Your task to perform on an android device: check android version Image 0: 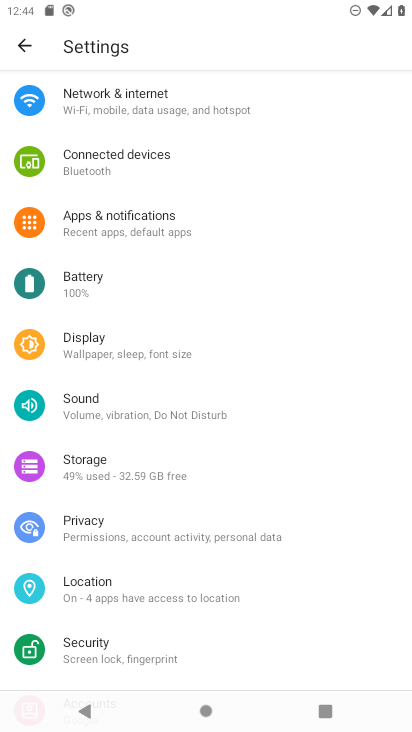
Step 0: drag from (348, 618) to (404, 198)
Your task to perform on an android device: check android version Image 1: 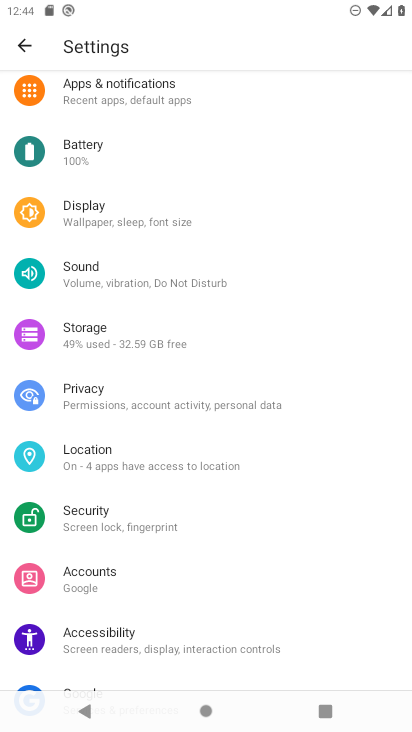
Step 1: drag from (280, 505) to (312, 36)
Your task to perform on an android device: check android version Image 2: 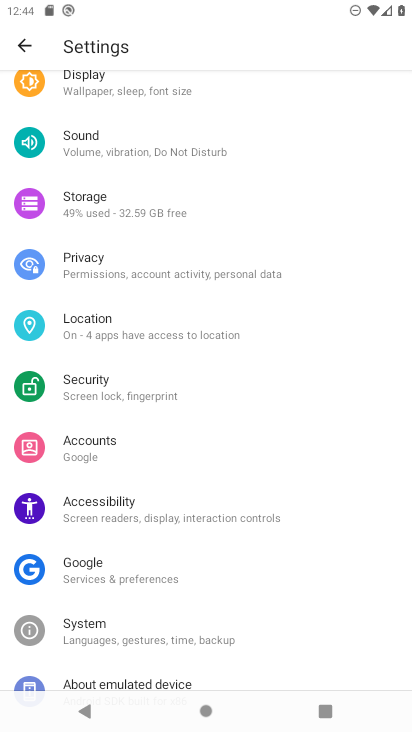
Step 2: drag from (262, 603) to (278, 197)
Your task to perform on an android device: check android version Image 3: 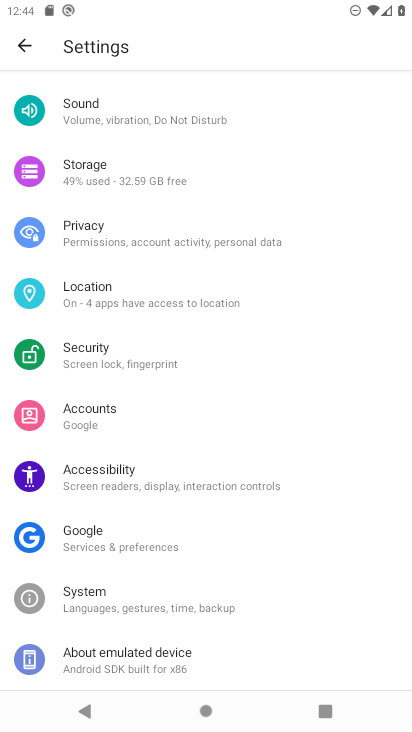
Step 3: click (98, 669)
Your task to perform on an android device: check android version Image 4: 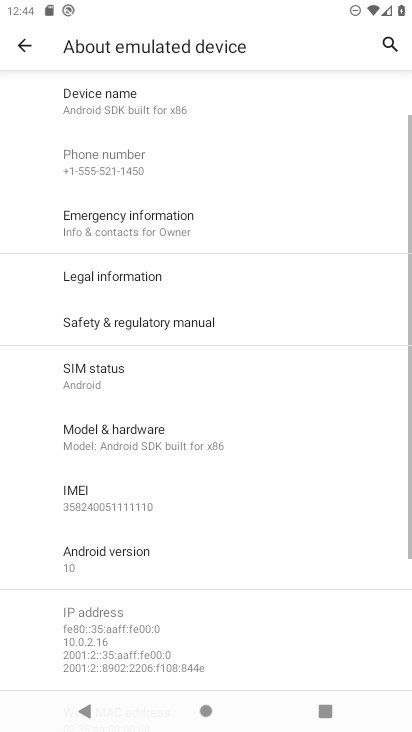
Step 4: click (136, 549)
Your task to perform on an android device: check android version Image 5: 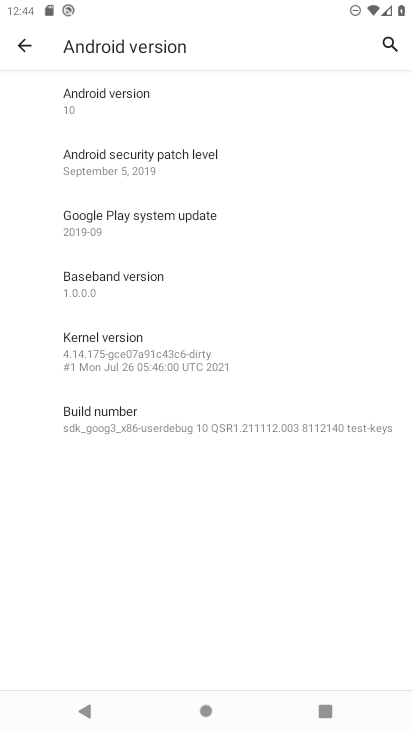
Step 5: task complete